Your task to perform on an android device: turn on notifications settings in the gmail app Image 0: 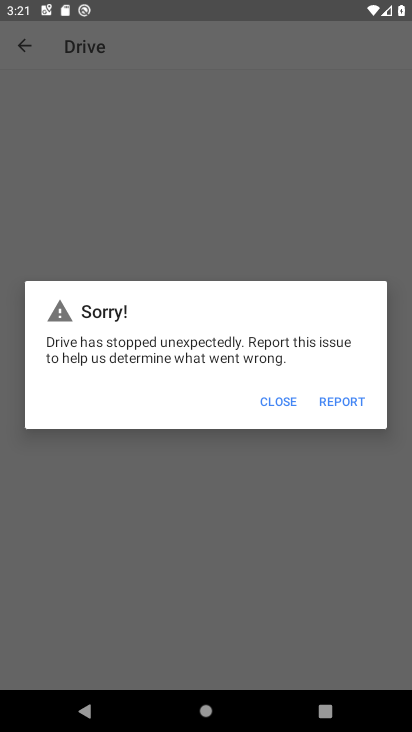
Step 0: drag from (196, 614) to (356, 111)
Your task to perform on an android device: turn on notifications settings in the gmail app Image 1: 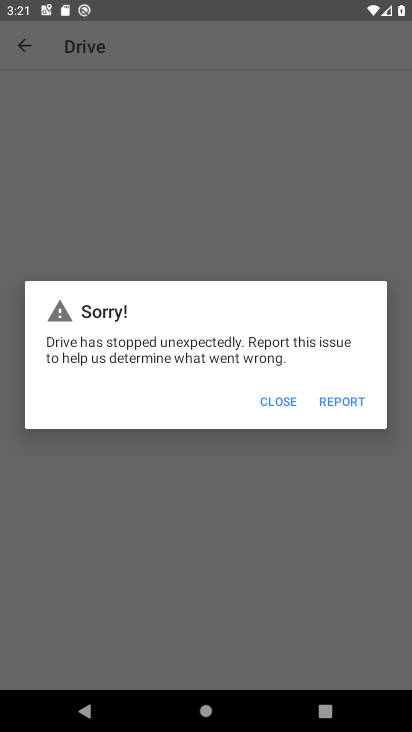
Step 1: drag from (213, 603) to (321, 144)
Your task to perform on an android device: turn on notifications settings in the gmail app Image 2: 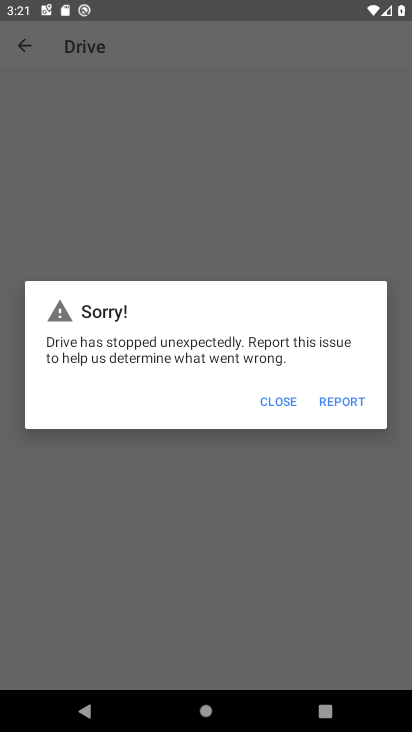
Step 2: drag from (239, 504) to (299, 319)
Your task to perform on an android device: turn on notifications settings in the gmail app Image 3: 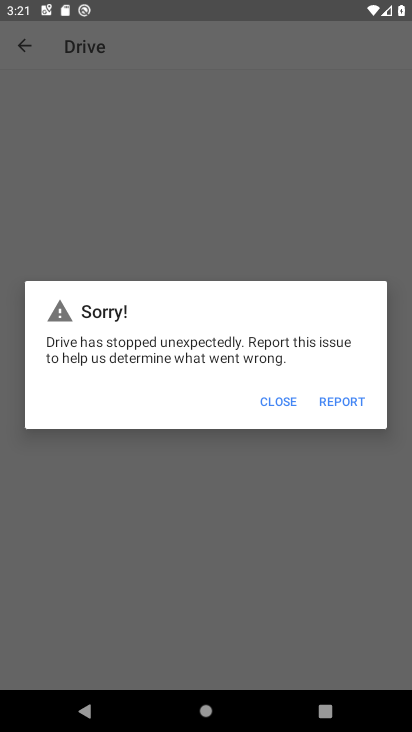
Step 3: press home button
Your task to perform on an android device: turn on notifications settings in the gmail app Image 4: 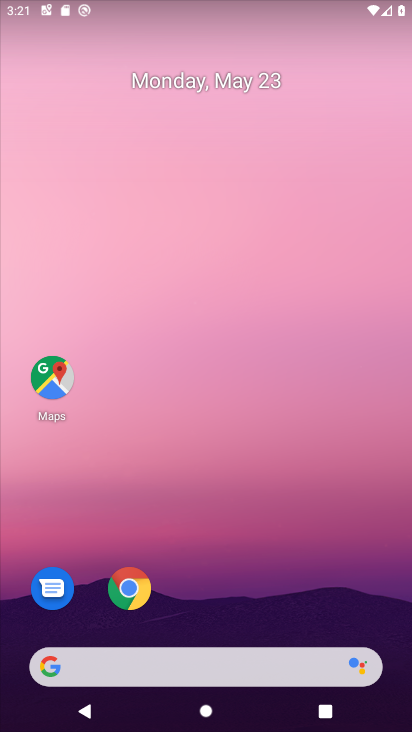
Step 4: drag from (183, 629) to (212, 84)
Your task to perform on an android device: turn on notifications settings in the gmail app Image 5: 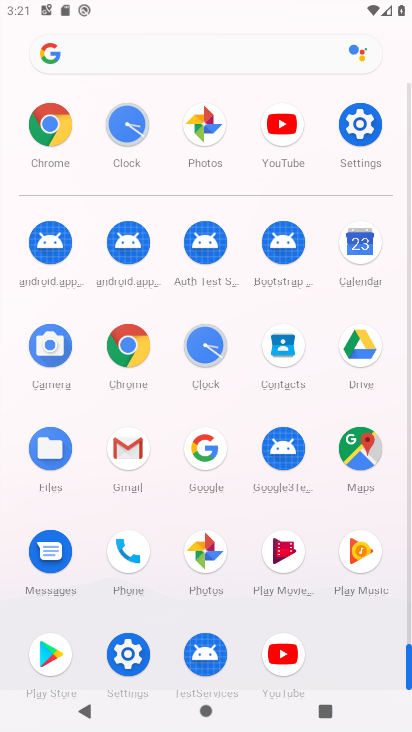
Step 5: click (129, 451)
Your task to perform on an android device: turn on notifications settings in the gmail app Image 6: 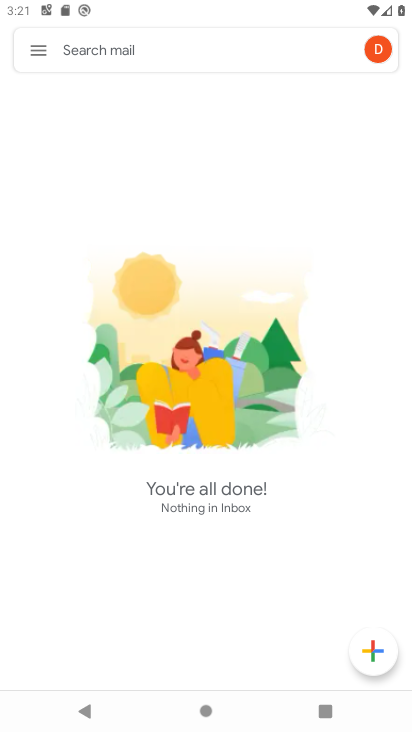
Step 6: click (48, 46)
Your task to perform on an android device: turn on notifications settings in the gmail app Image 7: 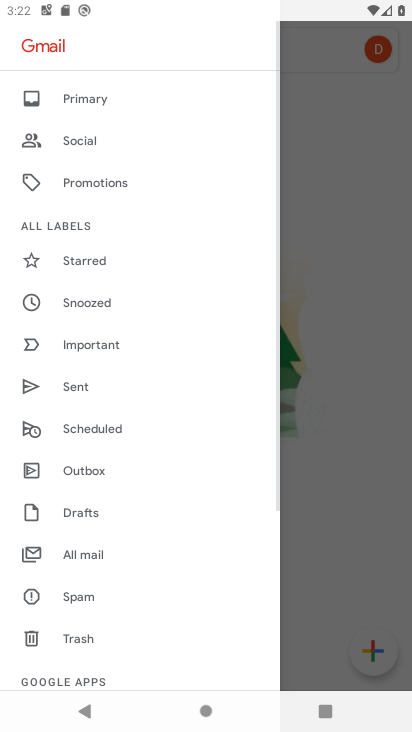
Step 7: drag from (116, 590) to (196, 167)
Your task to perform on an android device: turn on notifications settings in the gmail app Image 8: 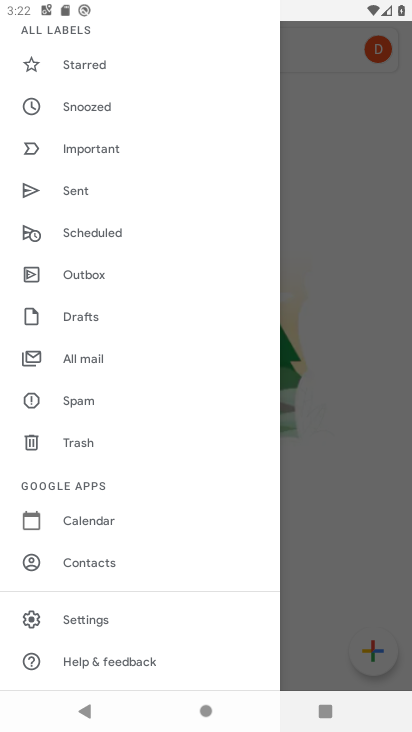
Step 8: click (93, 615)
Your task to perform on an android device: turn on notifications settings in the gmail app Image 9: 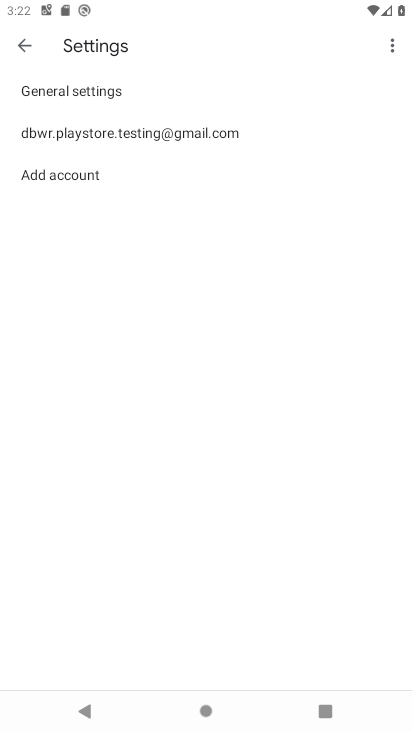
Step 9: drag from (258, 530) to (258, 175)
Your task to perform on an android device: turn on notifications settings in the gmail app Image 10: 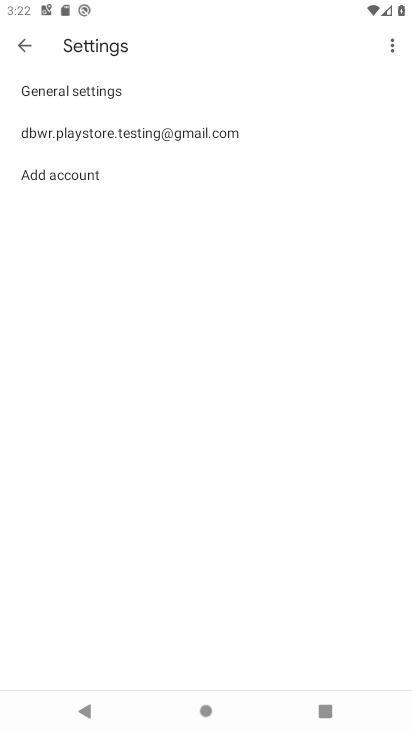
Step 10: click (138, 129)
Your task to perform on an android device: turn on notifications settings in the gmail app Image 11: 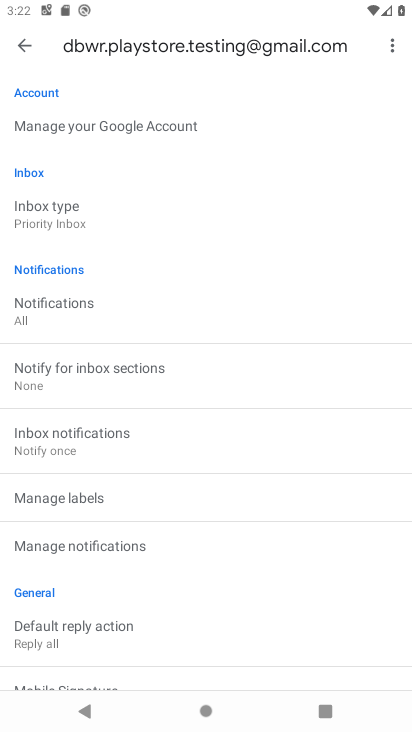
Step 11: click (105, 551)
Your task to perform on an android device: turn on notifications settings in the gmail app Image 12: 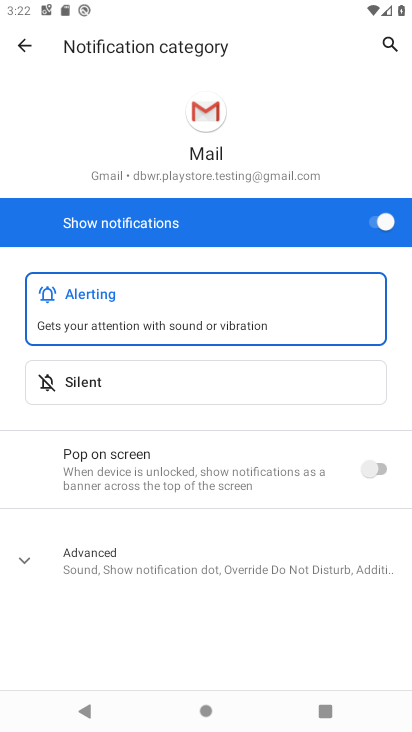
Step 12: task complete